Your task to perform on an android device: Go to privacy settings Image 0: 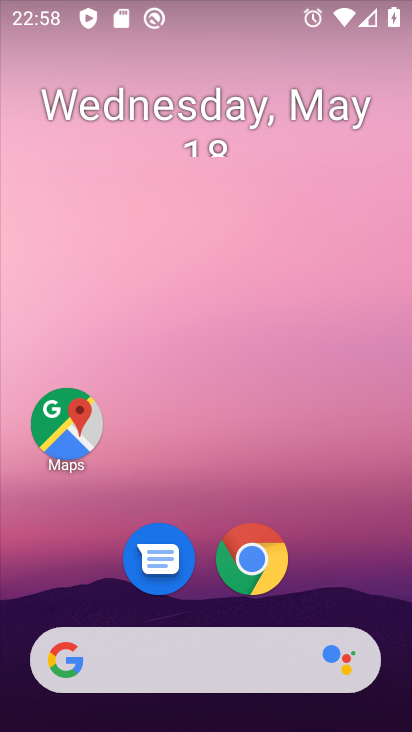
Step 0: drag from (325, 577) to (344, 110)
Your task to perform on an android device: Go to privacy settings Image 1: 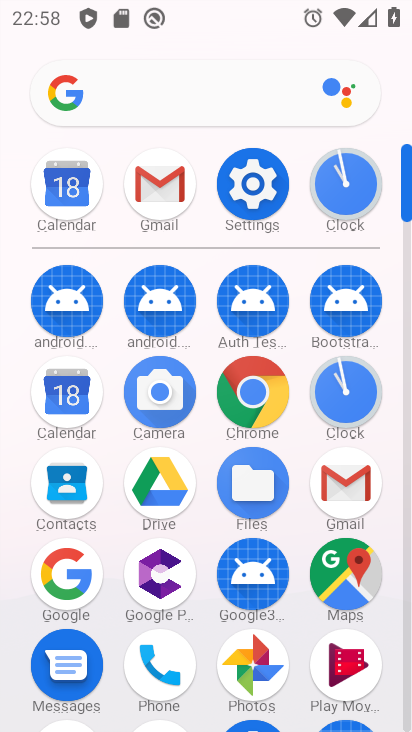
Step 1: click (264, 180)
Your task to perform on an android device: Go to privacy settings Image 2: 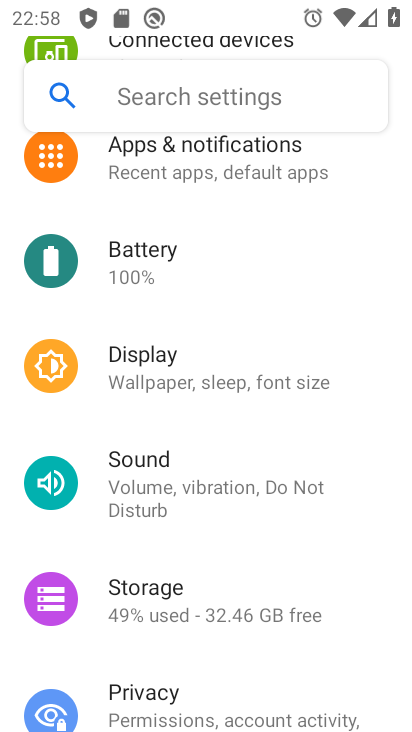
Step 2: click (166, 708)
Your task to perform on an android device: Go to privacy settings Image 3: 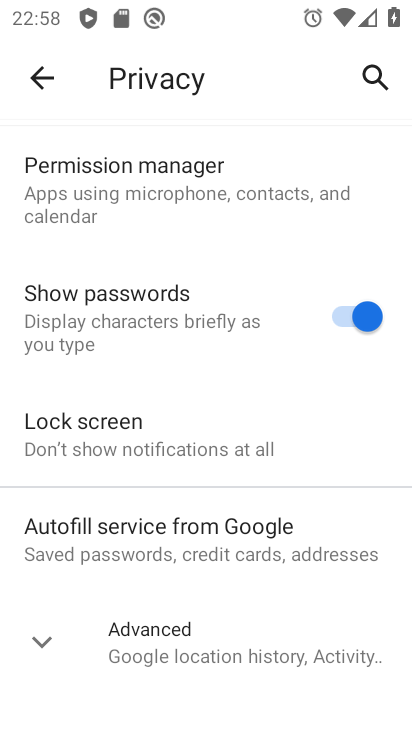
Step 3: task complete